Your task to perform on an android device: allow notifications from all sites in the chrome app Image 0: 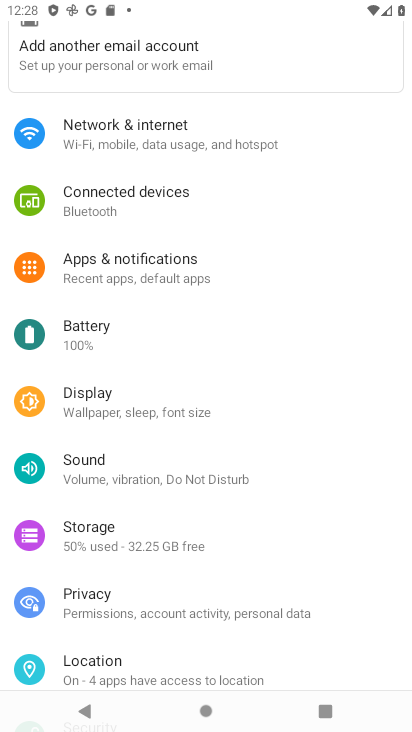
Step 0: press home button
Your task to perform on an android device: allow notifications from all sites in the chrome app Image 1: 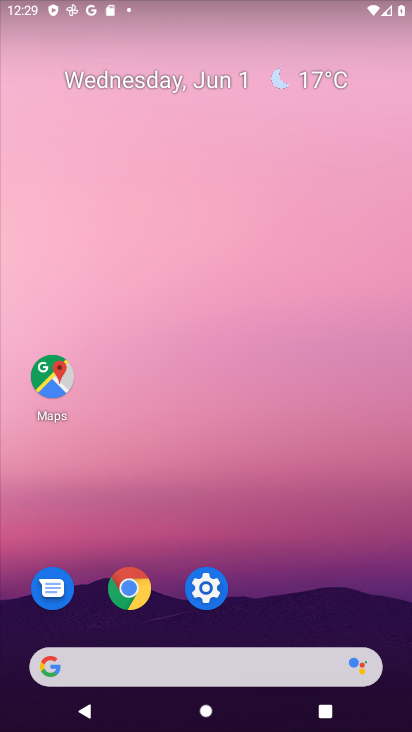
Step 1: click (142, 595)
Your task to perform on an android device: allow notifications from all sites in the chrome app Image 2: 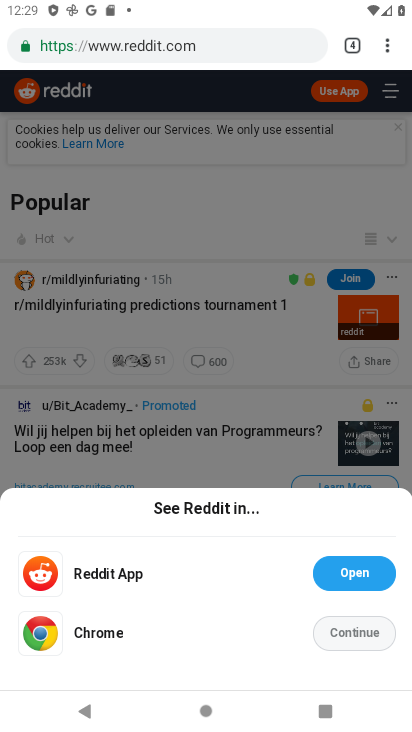
Step 2: click (391, 41)
Your task to perform on an android device: allow notifications from all sites in the chrome app Image 3: 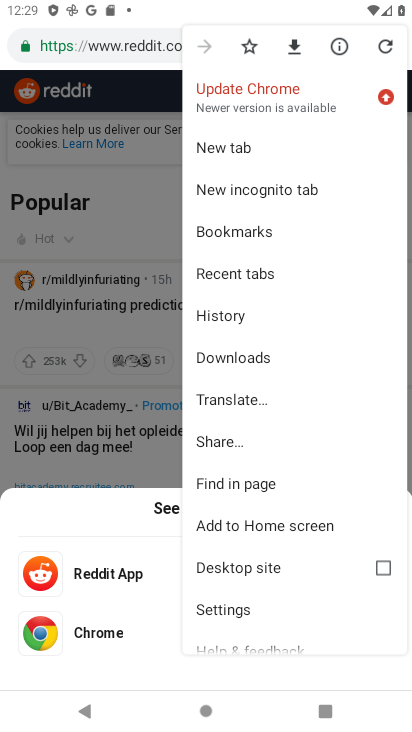
Step 3: click (233, 606)
Your task to perform on an android device: allow notifications from all sites in the chrome app Image 4: 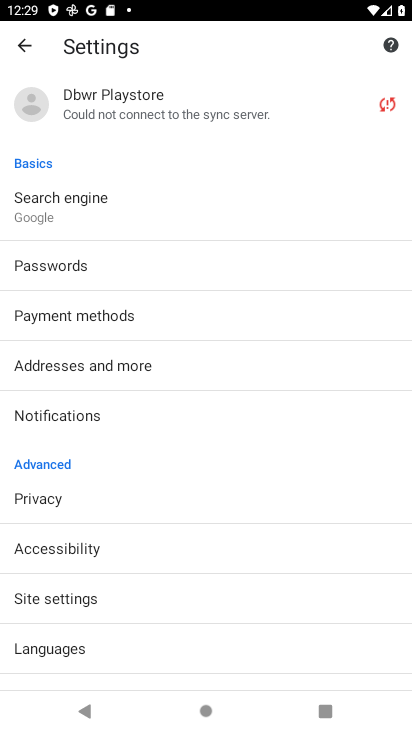
Step 4: click (83, 596)
Your task to perform on an android device: allow notifications from all sites in the chrome app Image 5: 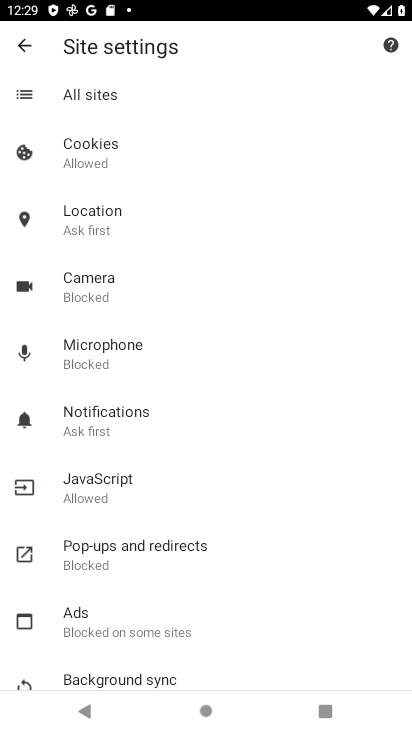
Step 5: click (89, 402)
Your task to perform on an android device: allow notifications from all sites in the chrome app Image 6: 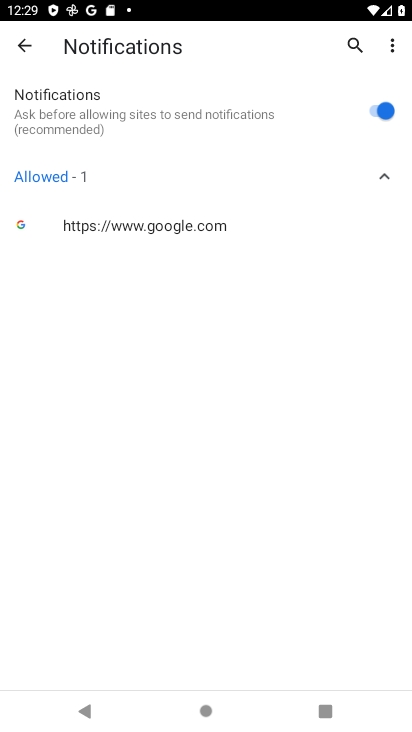
Step 6: task complete